Your task to perform on an android device: Open settings on Google Maps Image 0: 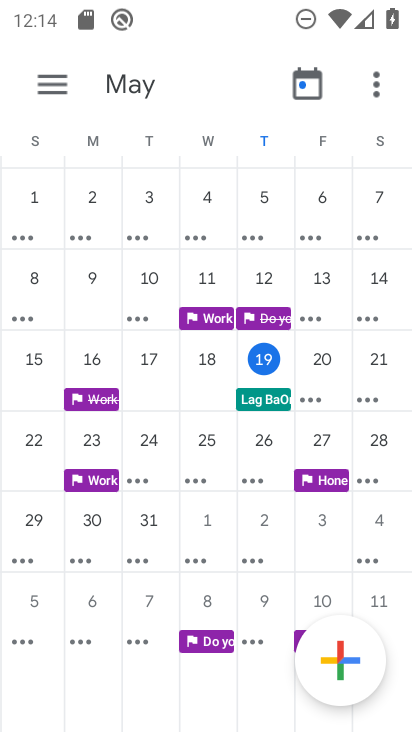
Step 0: press home button
Your task to perform on an android device: Open settings on Google Maps Image 1: 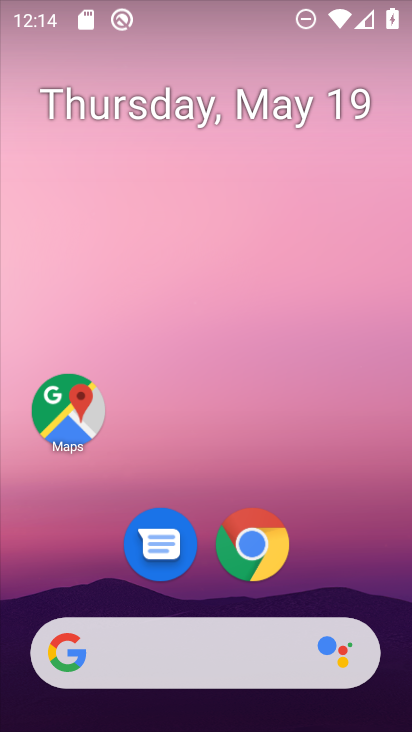
Step 1: click (262, 564)
Your task to perform on an android device: Open settings on Google Maps Image 2: 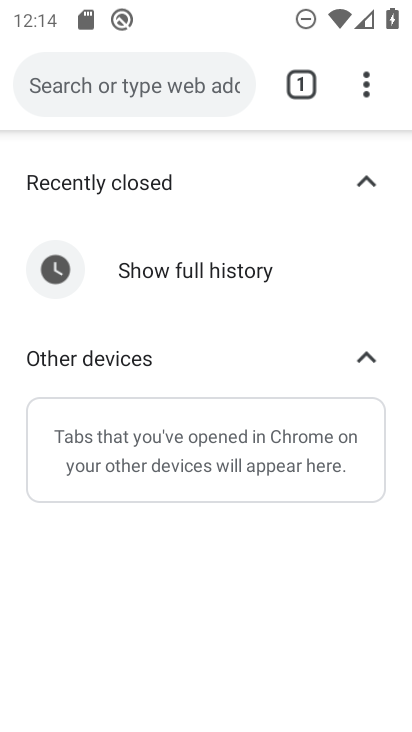
Step 2: click (367, 73)
Your task to perform on an android device: Open settings on Google Maps Image 3: 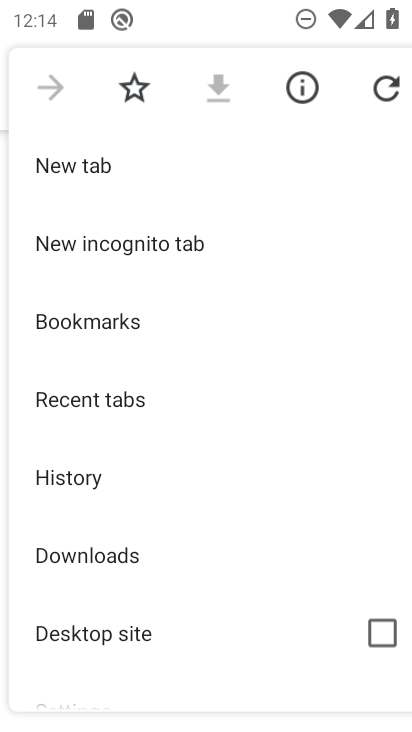
Step 3: drag from (126, 586) to (138, 237)
Your task to perform on an android device: Open settings on Google Maps Image 4: 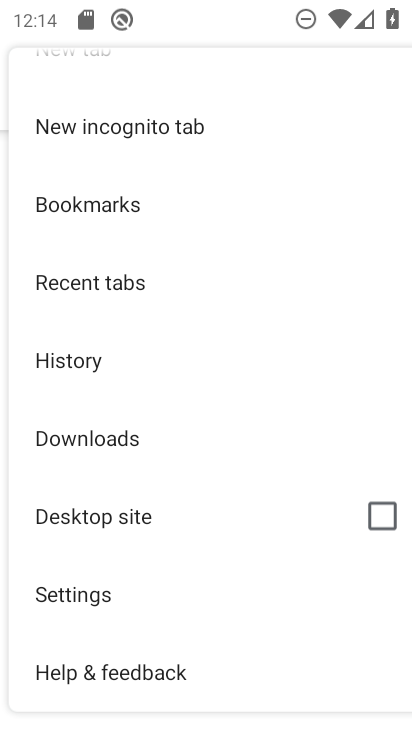
Step 4: click (68, 610)
Your task to perform on an android device: Open settings on Google Maps Image 5: 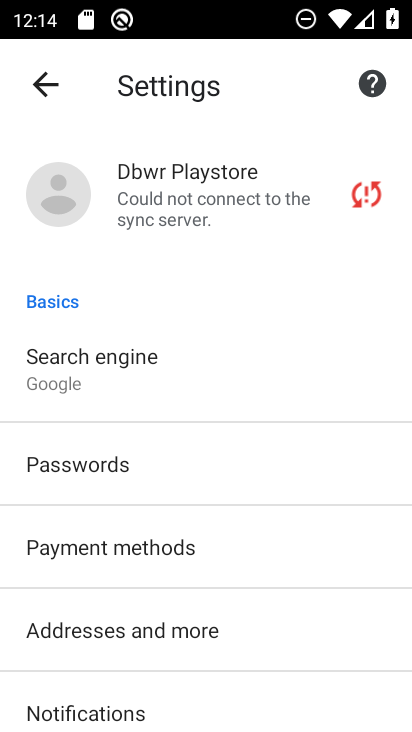
Step 5: press home button
Your task to perform on an android device: Open settings on Google Maps Image 6: 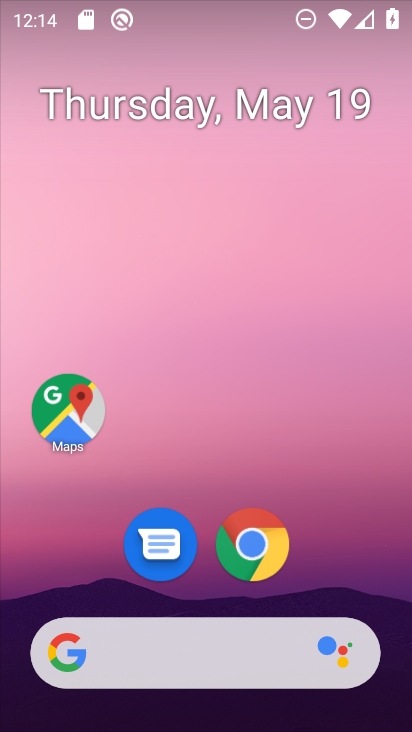
Step 6: click (63, 409)
Your task to perform on an android device: Open settings on Google Maps Image 7: 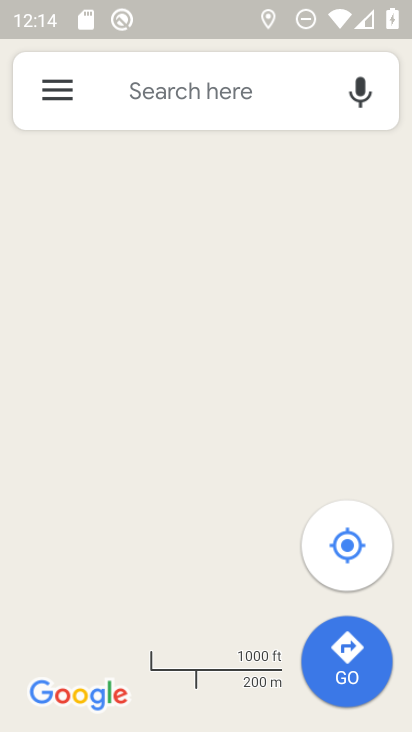
Step 7: click (54, 99)
Your task to perform on an android device: Open settings on Google Maps Image 8: 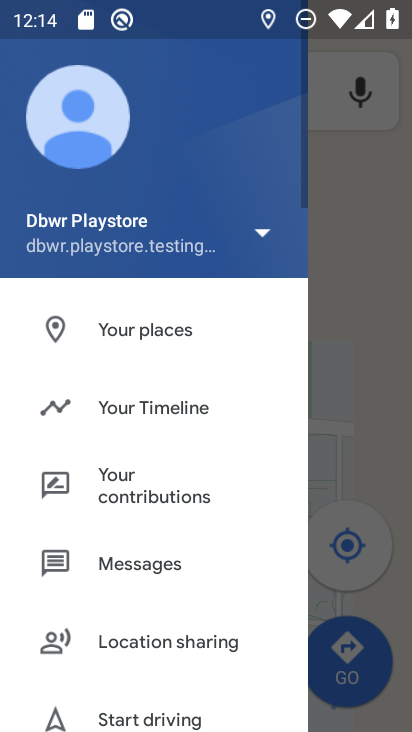
Step 8: drag from (145, 585) to (118, 316)
Your task to perform on an android device: Open settings on Google Maps Image 9: 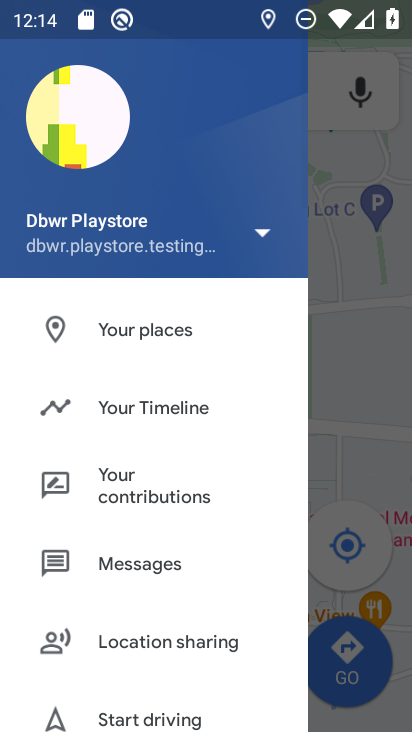
Step 9: drag from (104, 686) to (135, 152)
Your task to perform on an android device: Open settings on Google Maps Image 10: 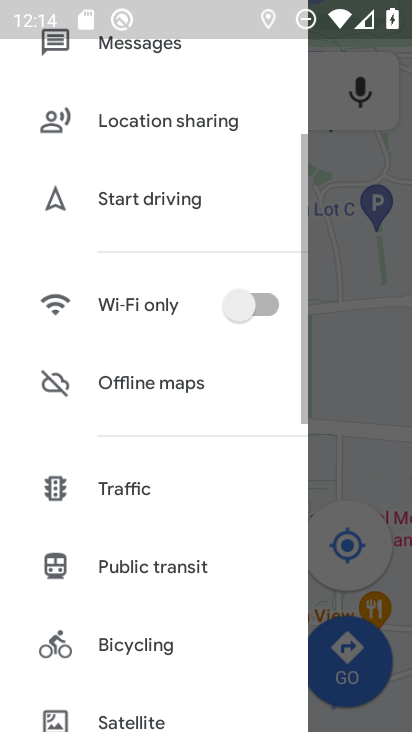
Step 10: drag from (128, 657) to (183, 160)
Your task to perform on an android device: Open settings on Google Maps Image 11: 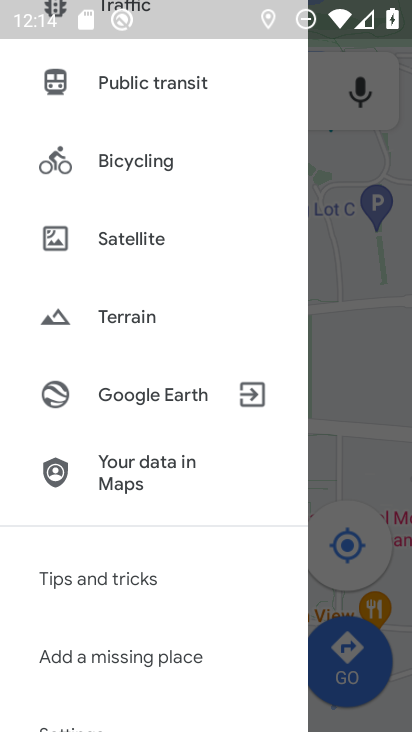
Step 11: drag from (140, 615) to (203, 208)
Your task to perform on an android device: Open settings on Google Maps Image 12: 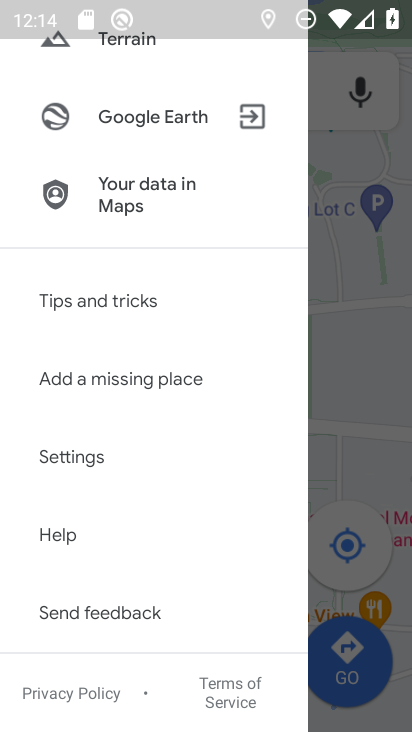
Step 12: click (136, 482)
Your task to perform on an android device: Open settings on Google Maps Image 13: 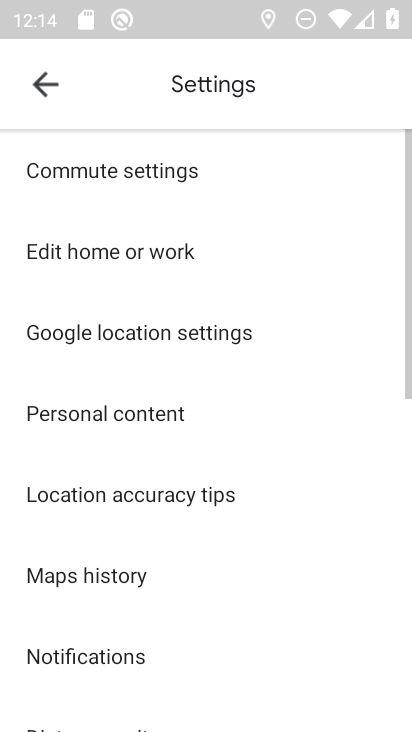
Step 13: task complete